Your task to perform on an android device: change the clock display to analog Image 0: 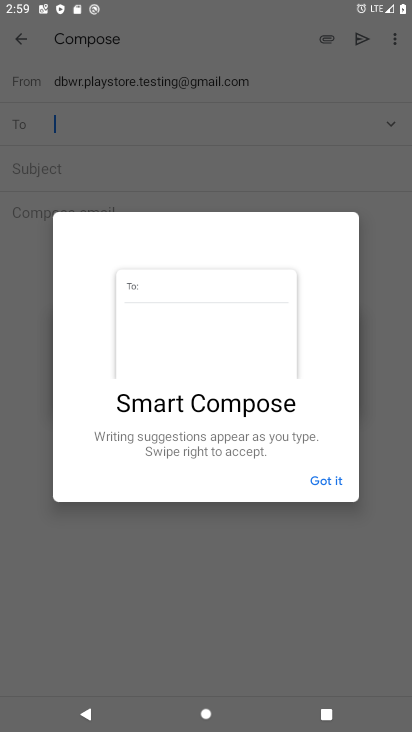
Step 0: press home button
Your task to perform on an android device: change the clock display to analog Image 1: 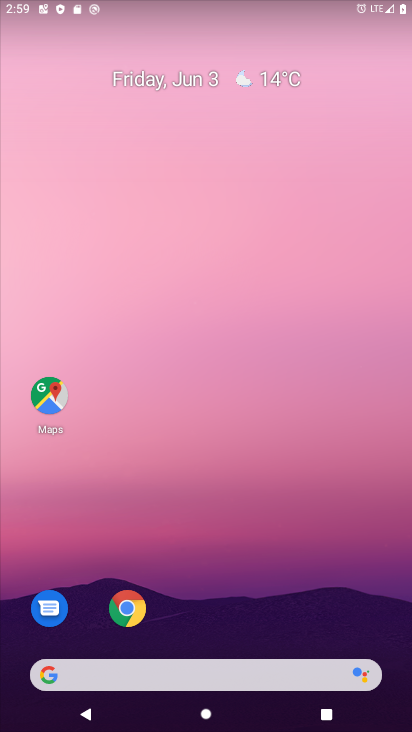
Step 1: drag from (185, 684) to (175, 206)
Your task to perform on an android device: change the clock display to analog Image 2: 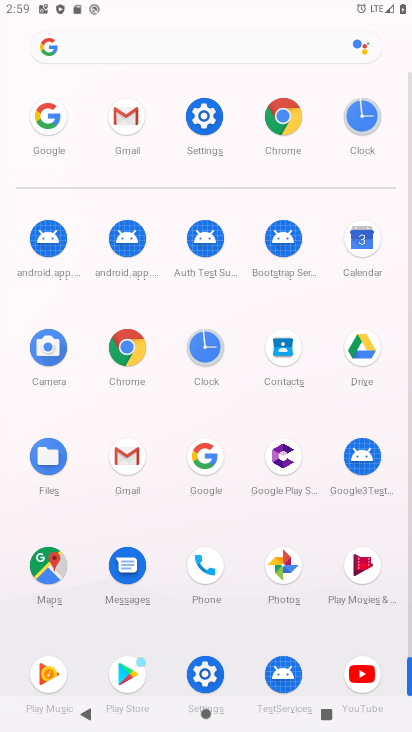
Step 2: click (368, 128)
Your task to perform on an android device: change the clock display to analog Image 3: 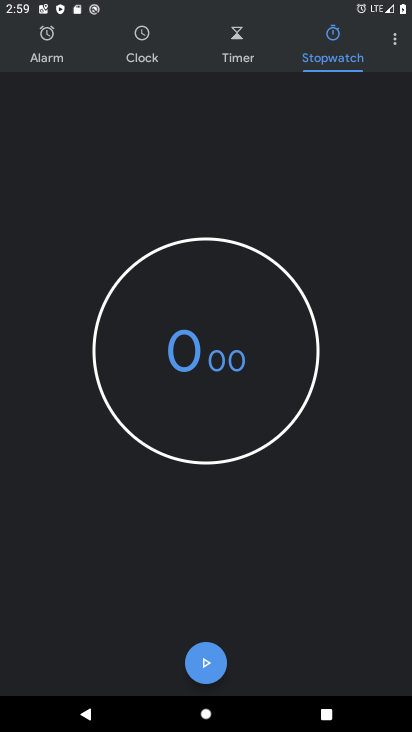
Step 3: click (391, 40)
Your task to perform on an android device: change the clock display to analog Image 4: 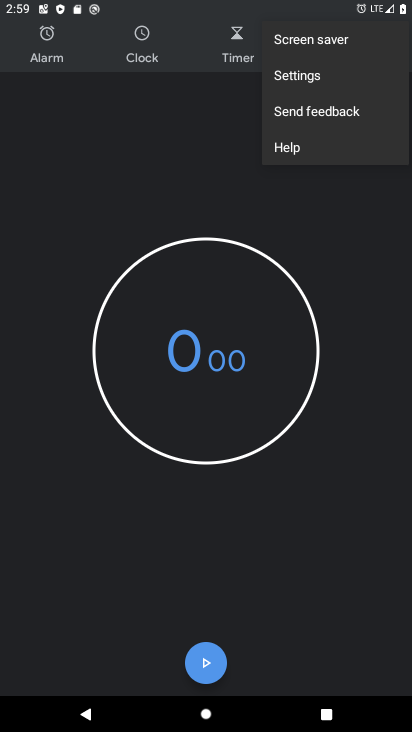
Step 4: click (327, 69)
Your task to perform on an android device: change the clock display to analog Image 5: 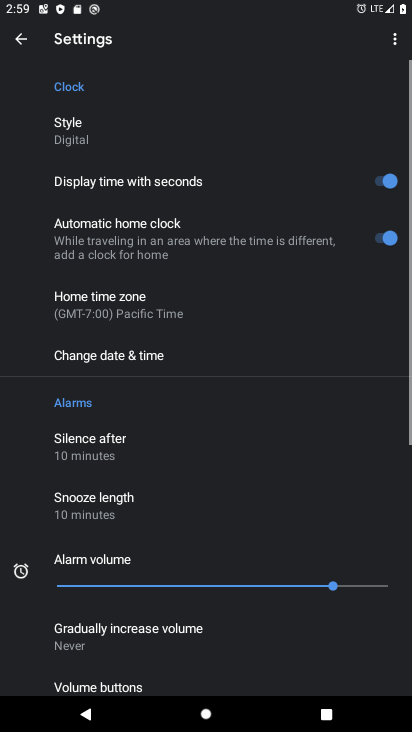
Step 5: click (83, 143)
Your task to perform on an android device: change the clock display to analog Image 6: 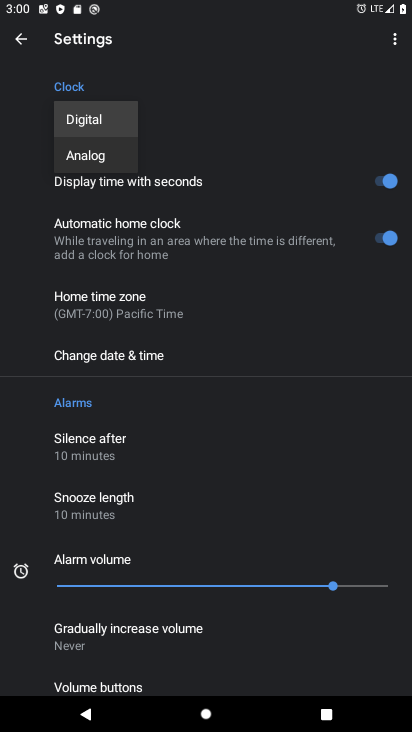
Step 6: click (108, 168)
Your task to perform on an android device: change the clock display to analog Image 7: 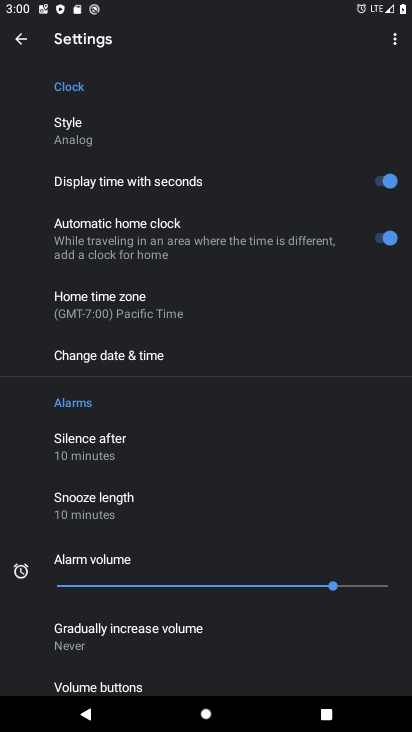
Step 7: task complete